Your task to perform on an android device: Open Google Image 0: 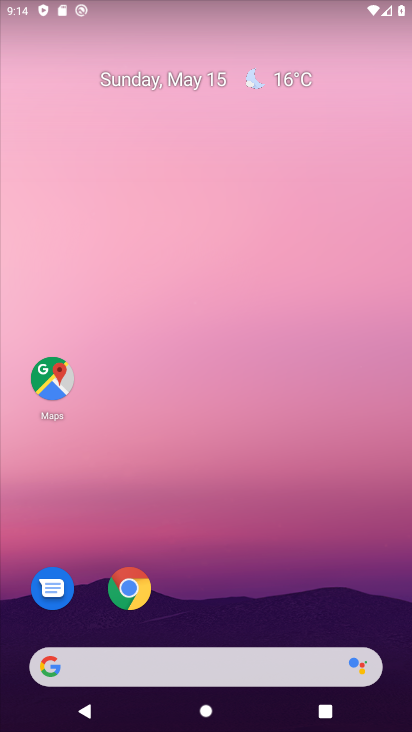
Step 0: click (222, 672)
Your task to perform on an android device: Open Google Image 1: 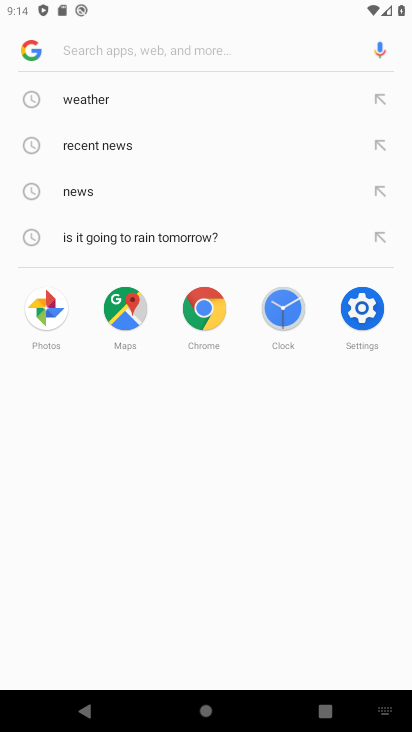
Step 1: click (32, 47)
Your task to perform on an android device: Open Google Image 2: 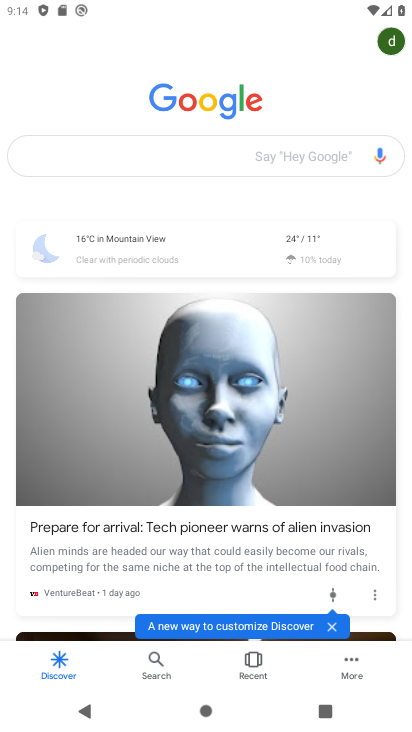
Step 2: task complete